Your task to perform on an android device: change the clock style Image 0: 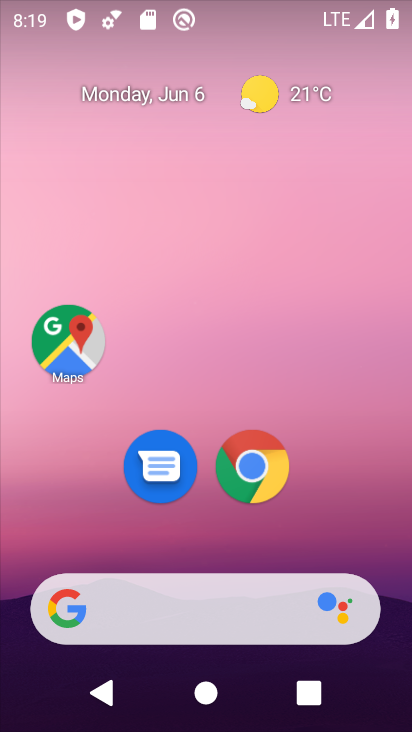
Step 0: drag from (199, 532) to (243, 183)
Your task to perform on an android device: change the clock style Image 1: 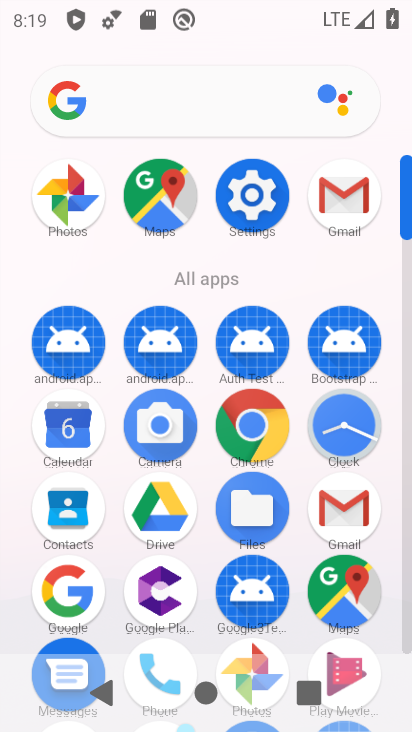
Step 1: click (337, 421)
Your task to perform on an android device: change the clock style Image 2: 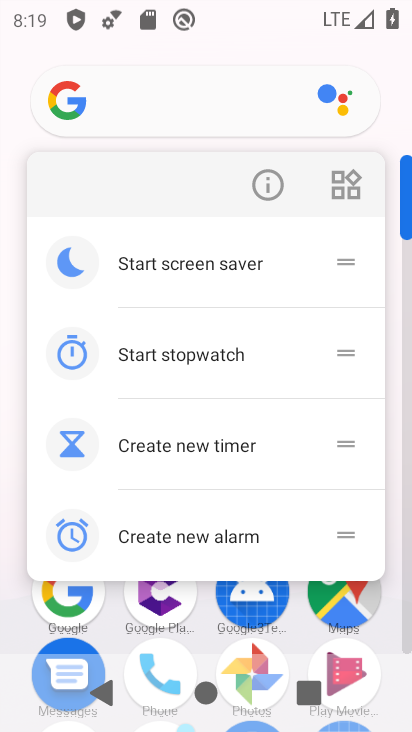
Step 2: click (252, 197)
Your task to perform on an android device: change the clock style Image 3: 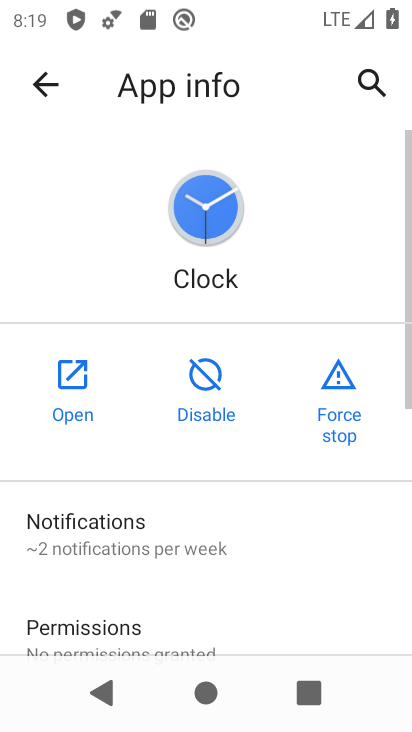
Step 3: click (85, 394)
Your task to perform on an android device: change the clock style Image 4: 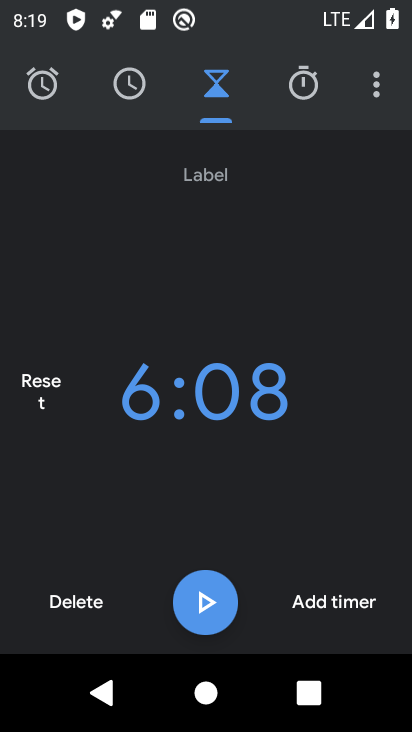
Step 4: click (390, 69)
Your task to perform on an android device: change the clock style Image 5: 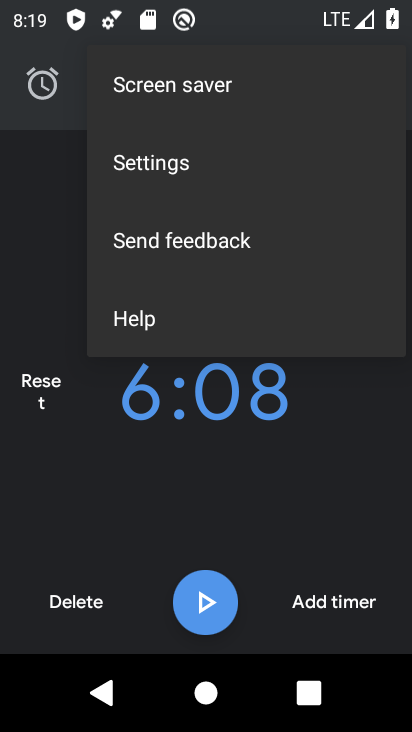
Step 5: click (221, 159)
Your task to perform on an android device: change the clock style Image 6: 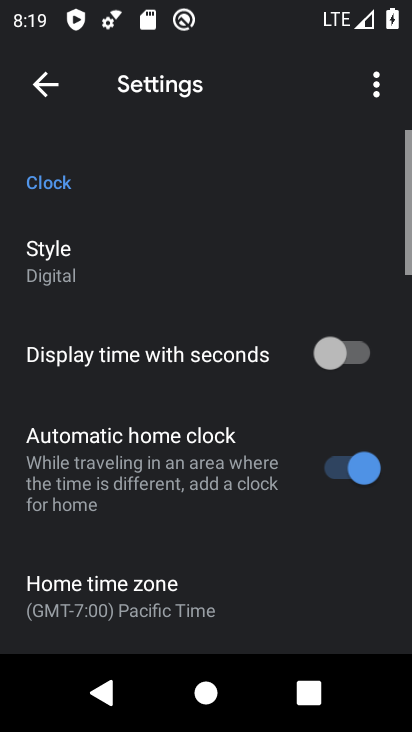
Step 6: click (94, 261)
Your task to perform on an android device: change the clock style Image 7: 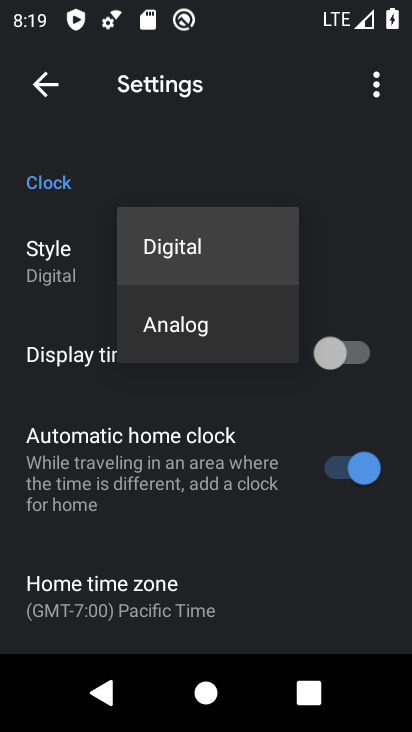
Step 7: click (192, 325)
Your task to perform on an android device: change the clock style Image 8: 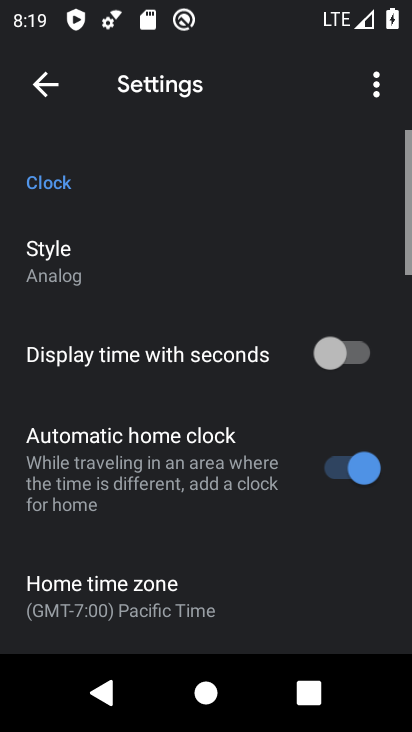
Step 8: task complete